Your task to perform on an android device: Open Youtube and go to "Your channel" Image 0: 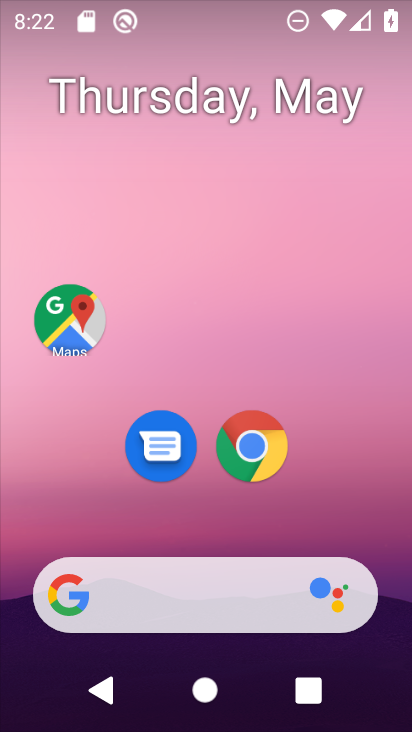
Step 0: drag from (357, 502) to (350, 115)
Your task to perform on an android device: Open Youtube and go to "Your channel" Image 1: 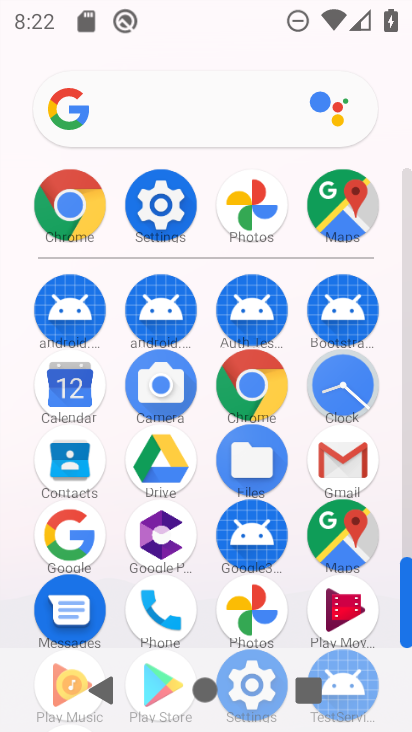
Step 1: drag from (206, 599) to (223, 196)
Your task to perform on an android device: Open Youtube and go to "Your channel" Image 2: 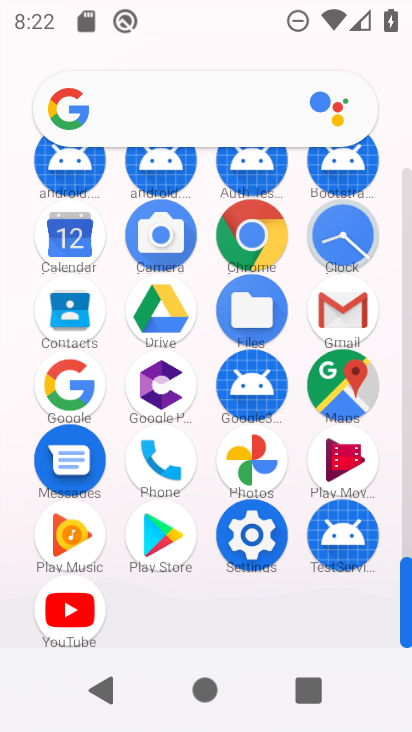
Step 2: click (81, 603)
Your task to perform on an android device: Open Youtube and go to "Your channel" Image 3: 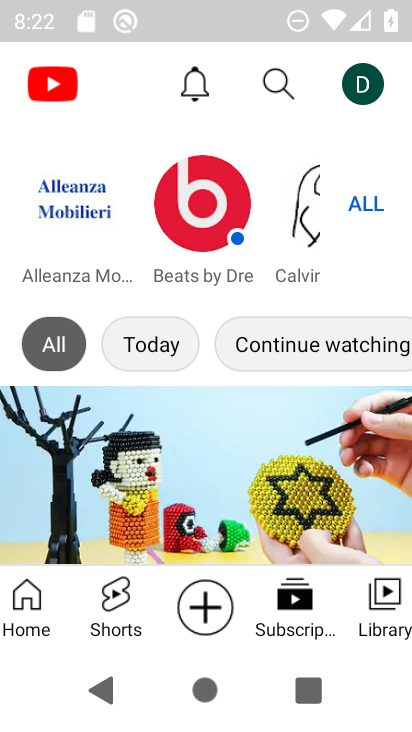
Step 3: click (356, 92)
Your task to perform on an android device: Open Youtube and go to "Your channel" Image 4: 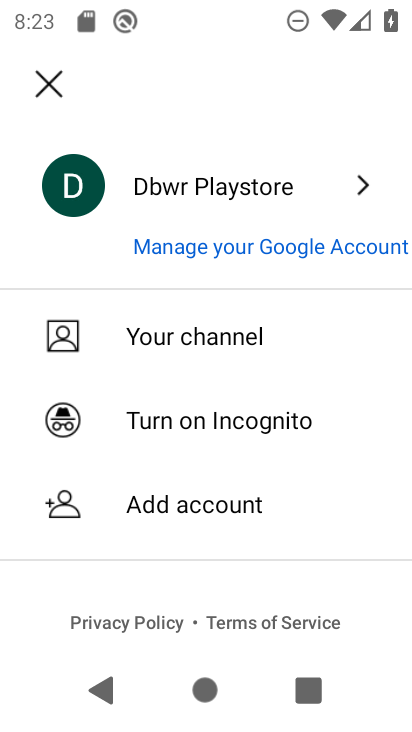
Step 4: click (248, 330)
Your task to perform on an android device: Open Youtube and go to "Your channel" Image 5: 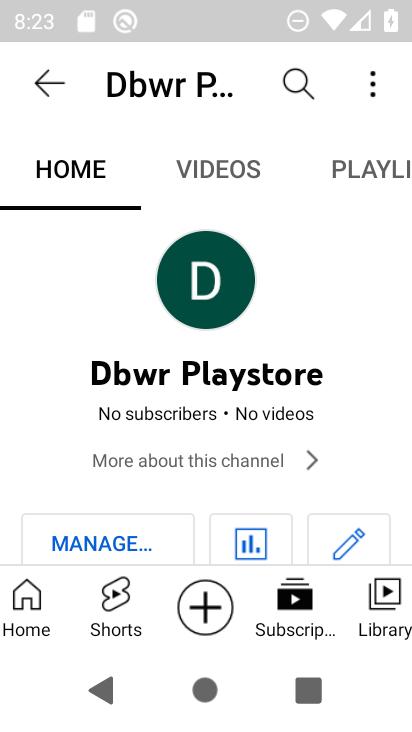
Step 5: task complete